Your task to perform on an android device: change timer sound Image 0: 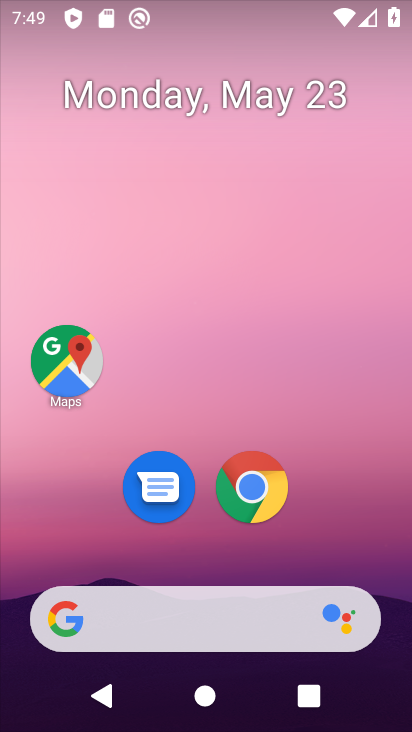
Step 0: drag from (352, 537) to (225, 21)
Your task to perform on an android device: change timer sound Image 1: 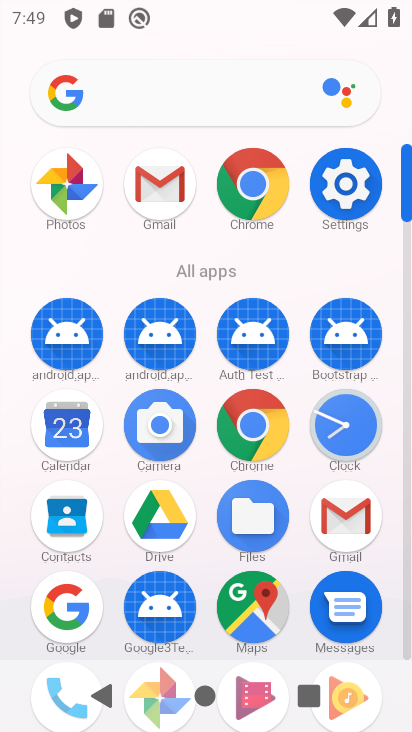
Step 1: drag from (15, 506) to (15, 158)
Your task to perform on an android device: change timer sound Image 2: 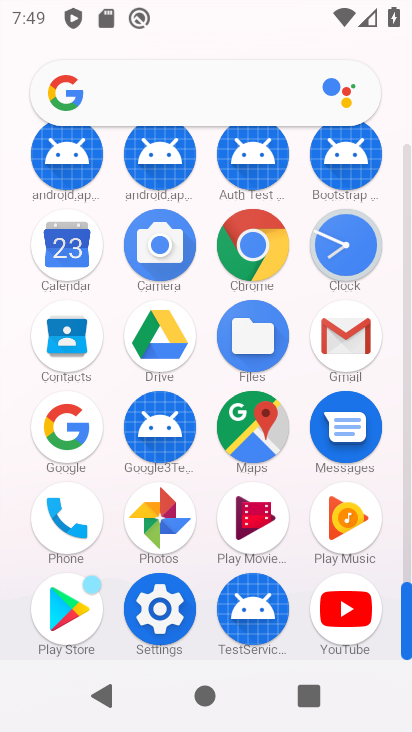
Step 2: click (343, 244)
Your task to perform on an android device: change timer sound Image 3: 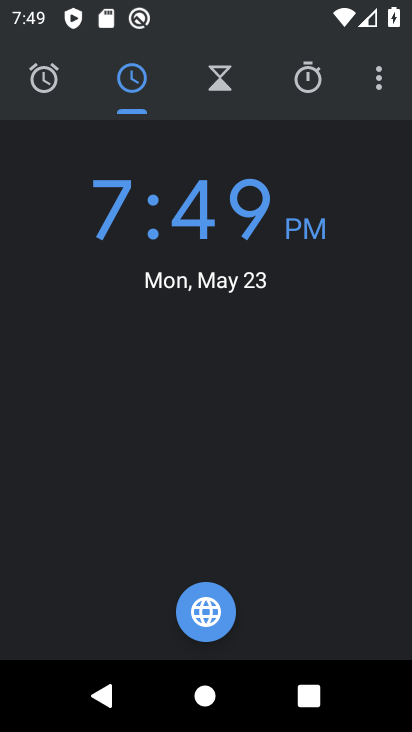
Step 3: drag from (386, 69) to (49, 166)
Your task to perform on an android device: change timer sound Image 4: 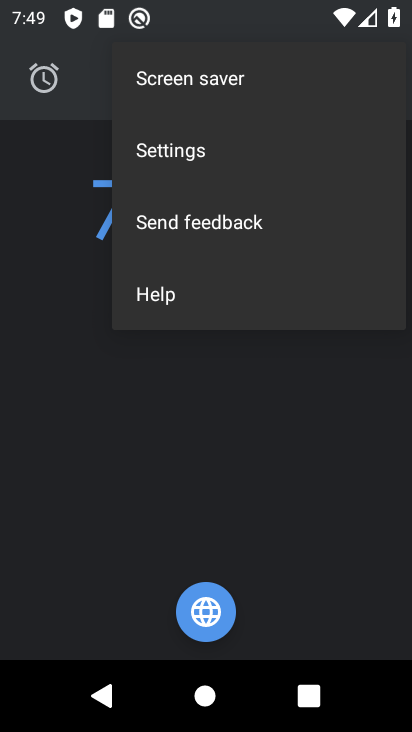
Step 4: click (92, 156)
Your task to perform on an android device: change timer sound Image 5: 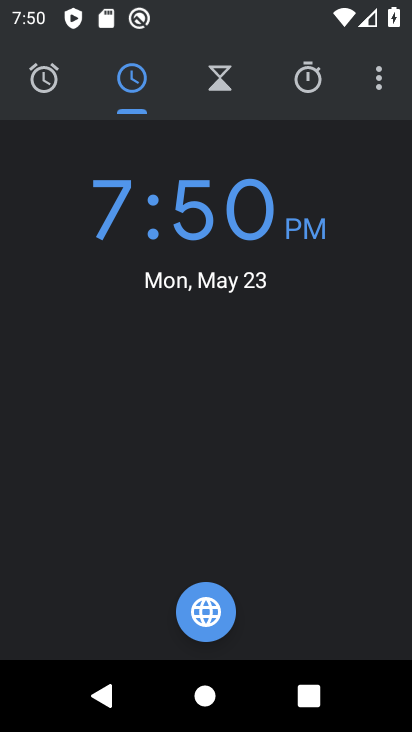
Step 5: drag from (377, 76) to (300, 134)
Your task to perform on an android device: change timer sound Image 6: 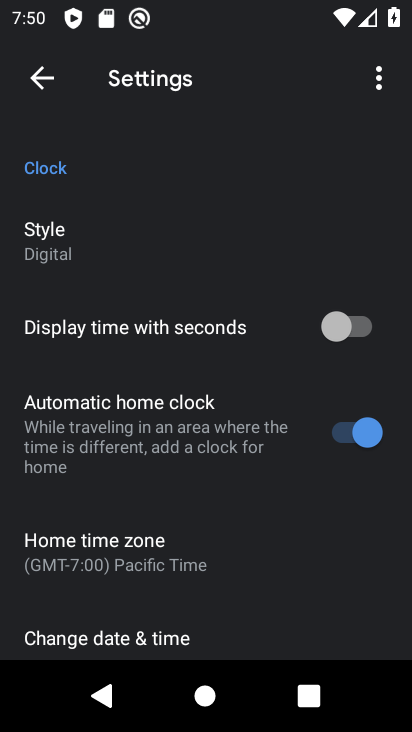
Step 6: drag from (234, 488) to (255, 149)
Your task to perform on an android device: change timer sound Image 7: 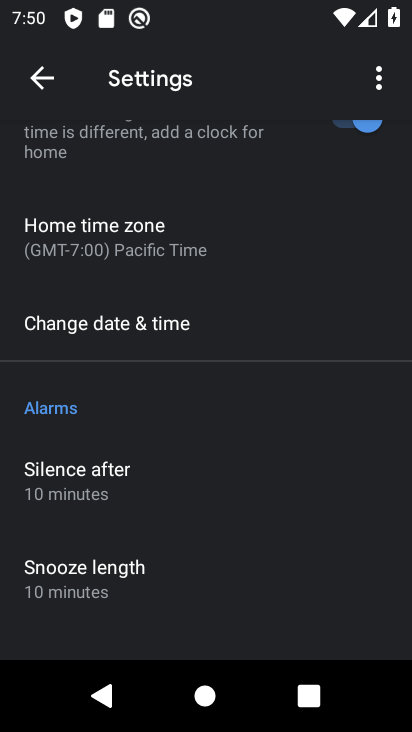
Step 7: drag from (201, 575) to (213, 225)
Your task to perform on an android device: change timer sound Image 8: 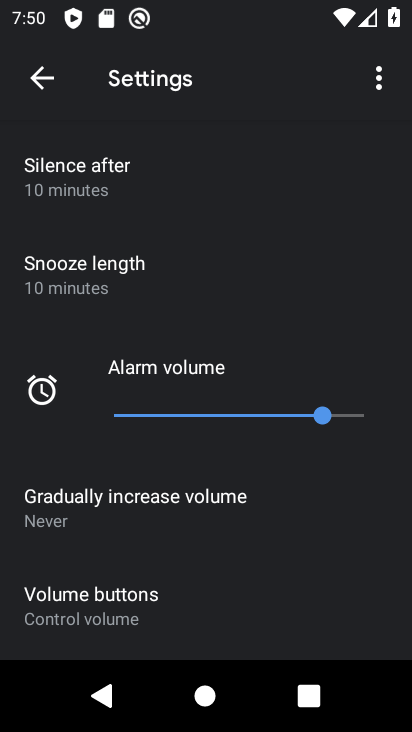
Step 8: drag from (121, 620) to (178, 172)
Your task to perform on an android device: change timer sound Image 9: 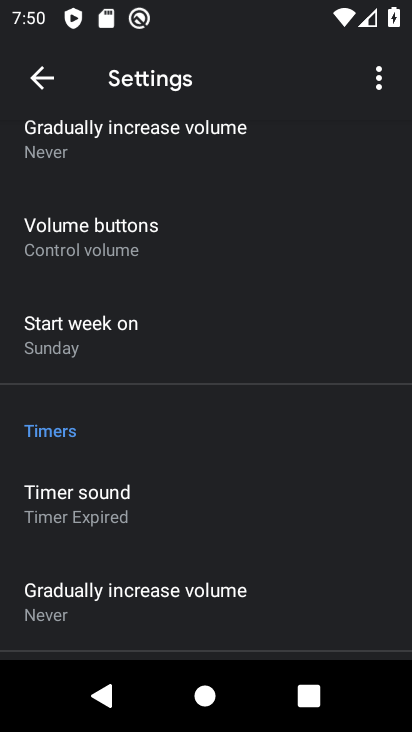
Step 9: drag from (174, 502) to (201, 235)
Your task to perform on an android device: change timer sound Image 10: 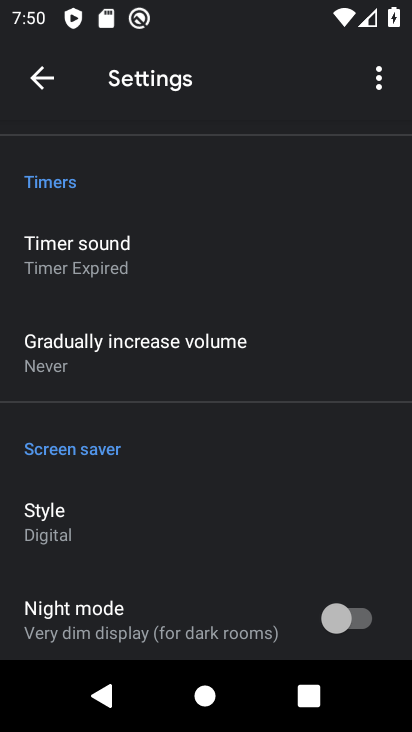
Step 10: click (149, 233)
Your task to perform on an android device: change timer sound Image 11: 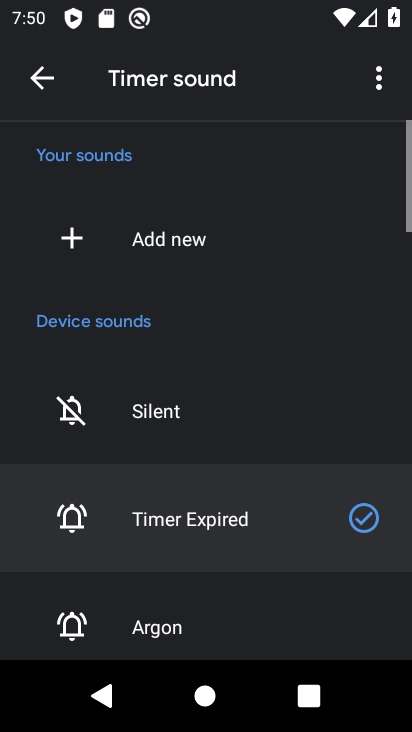
Step 11: click (150, 598)
Your task to perform on an android device: change timer sound Image 12: 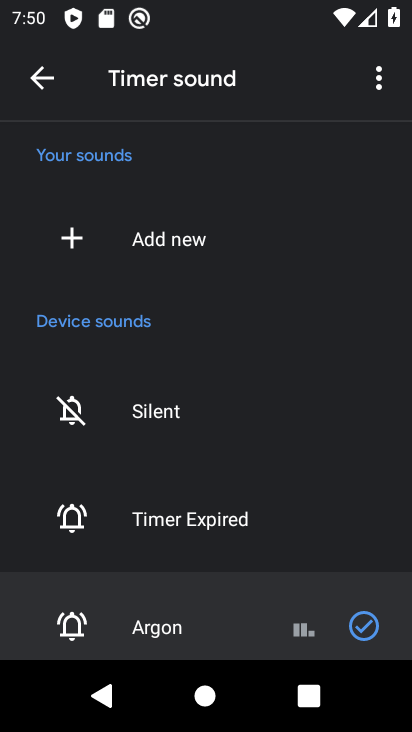
Step 12: task complete